Your task to perform on an android device: see sites visited before in the chrome app Image 0: 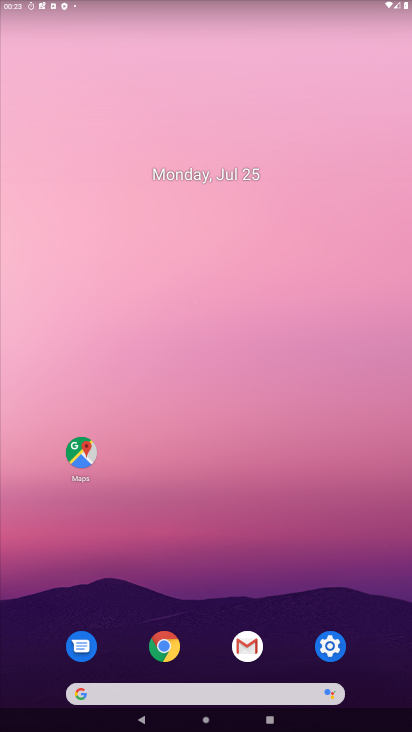
Step 0: click (172, 640)
Your task to perform on an android device: see sites visited before in the chrome app Image 1: 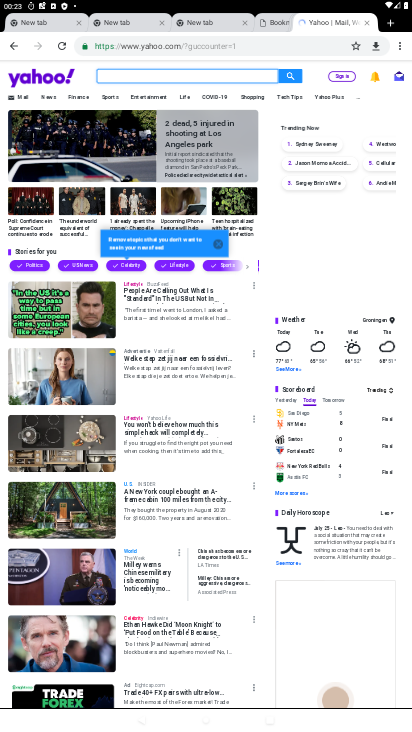
Step 1: click (400, 43)
Your task to perform on an android device: see sites visited before in the chrome app Image 2: 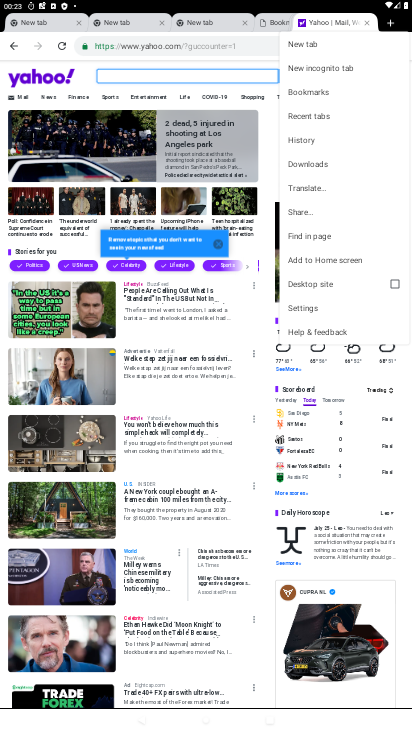
Step 2: click (303, 307)
Your task to perform on an android device: see sites visited before in the chrome app Image 3: 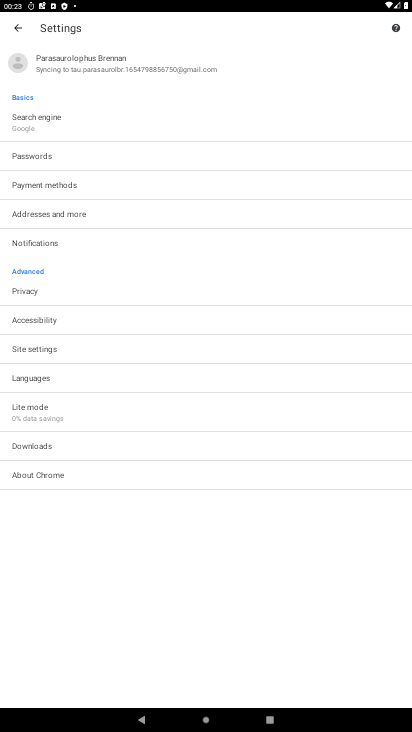
Step 3: click (40, 342)
Your task to perform on an android device: see sites visited before in the chrome app Image 4: 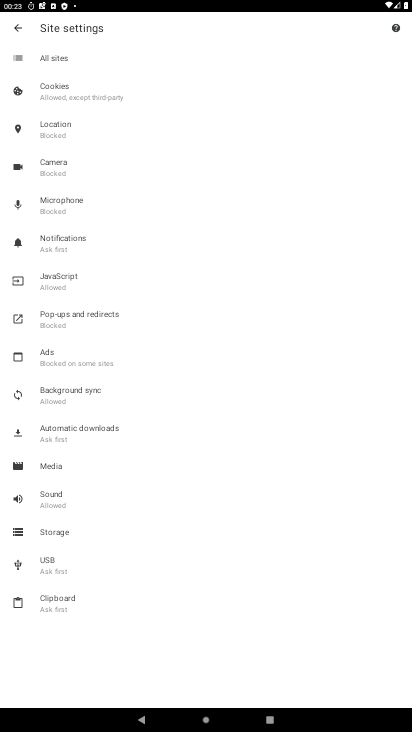
Step 4: click (82, 61)
Your task to perform on an android device: see sites visited before in the chrome app Image 5: 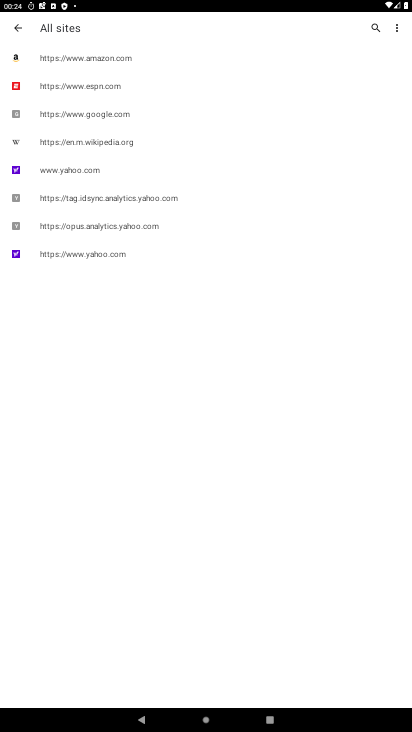
Step 5: task complete